Your task to perform on an android device: Empty the shopping cart on bestbuy. Add macbook pro 15 inch to the cart on bestbuy Image 0: 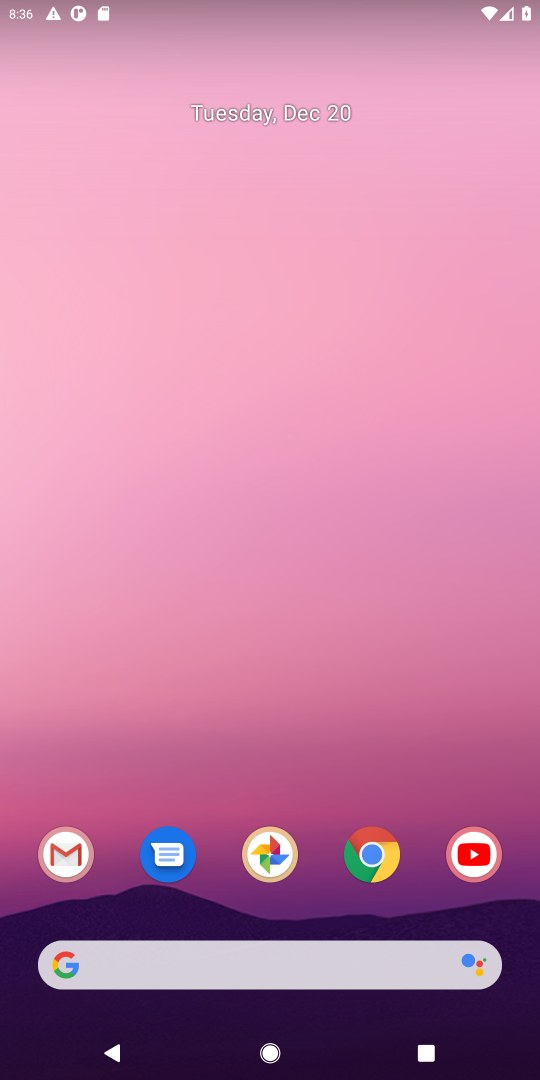
Step 0: click (380, 862)
Your task to perform on an android device: Empty the shopping cart on bestbuy. Add macbook pro 15 inch to the cart on bestbuy Image 1: 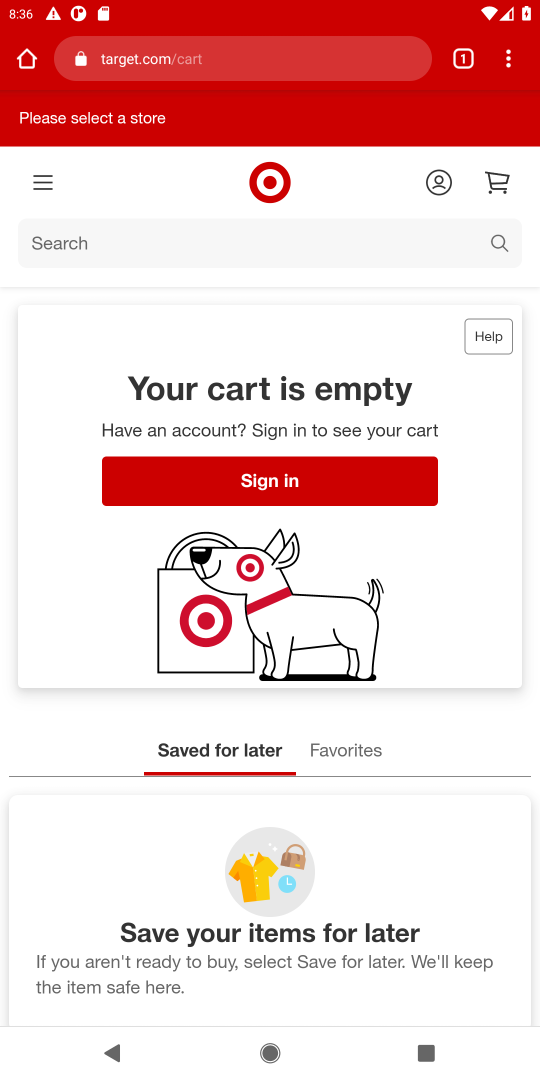
Step 1: click (185, 64)
Your task to perform on an android device: Empty the shopping cart on bestbuy. Add macbook pro 15 inch to the cart on bestbuy Image 2: 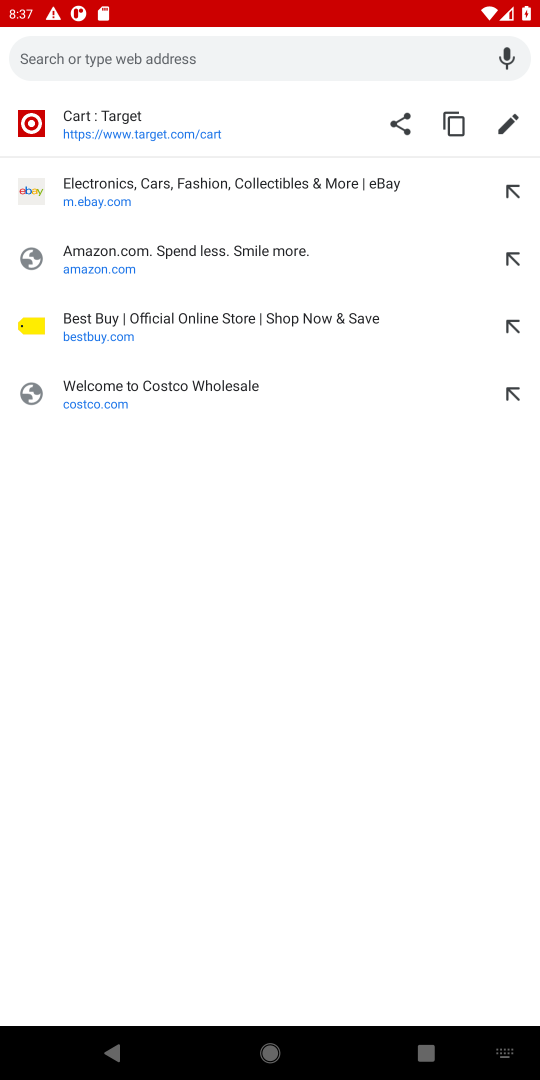
Step 2: click (100, 330)
Your task to perform on an android device: Empty the shopping cart on bestbuy. Add macbook pro 15 inch to the cart on bestbuy Image 3: 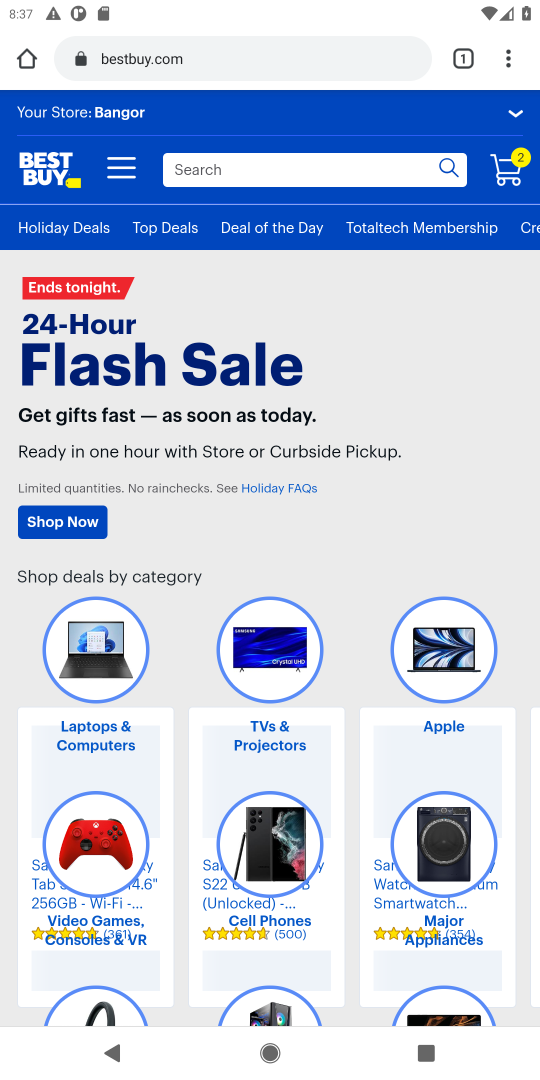
Step 3: click (503, 172)
Your task to perform on an android device: Empty the shopping cart on bestbuy. Add macbook pro 15 inch to the cart on bestbuy Image 4: 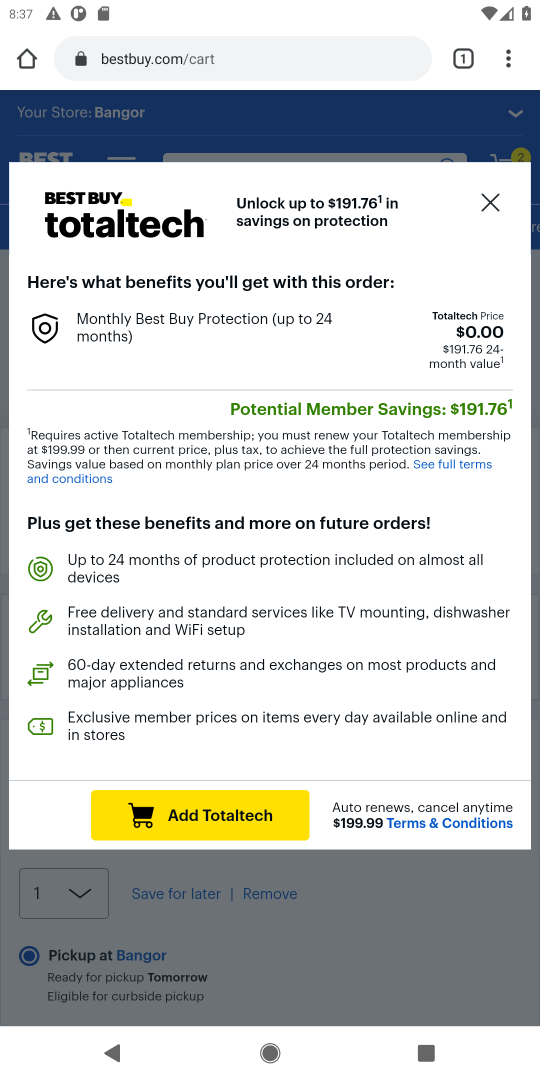
Step 4: click (486, 205)
Your task to perform on an android device: Empty the shopping cart on bestbuy. Add macbook pro 15 inch to the cart on bestbuy Image 5: 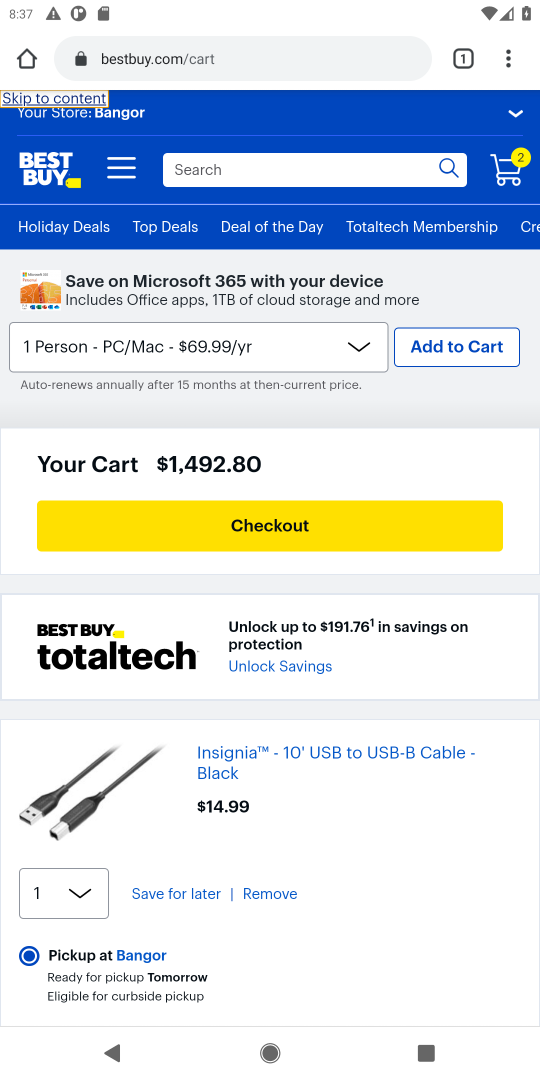
Step 5: drag from (227, 681) to (239, 494)
Your task to perform on an android device: Empty the shopping cart on bestbuy. Add macbook pro 15 inch to the cart on bestbuy Image 6: 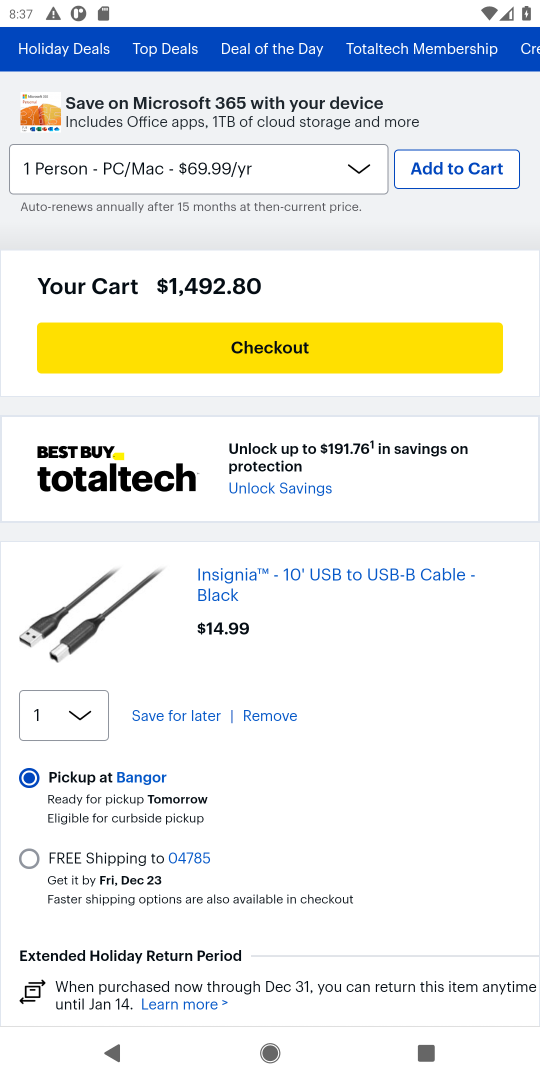
Step 6: click (275, 721)
Your task to perform on an android device: Empty the shopping cart on bestbuy. Add macbook pro 15 inch to the cart on bestbuy Image 7: 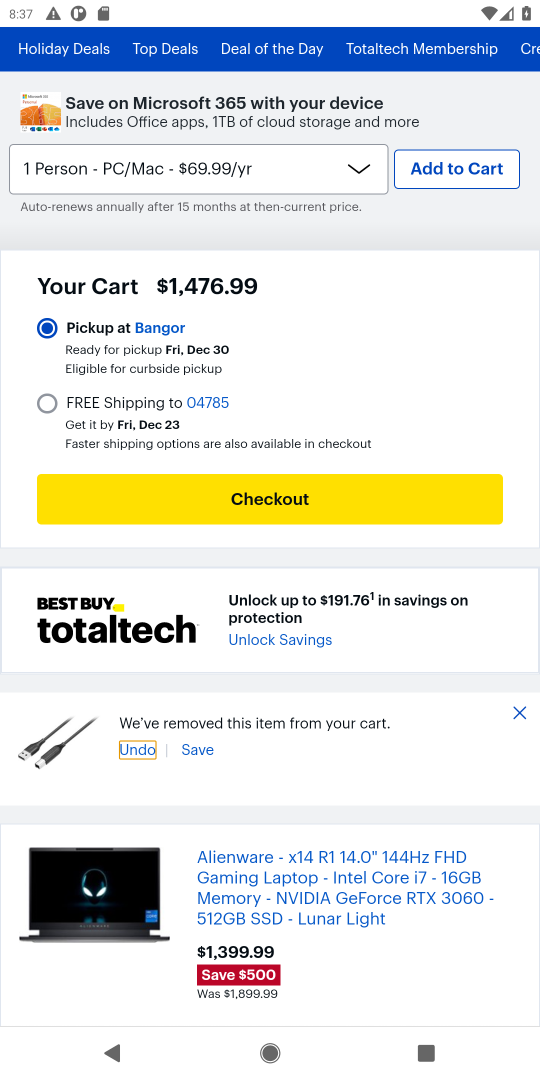
Step 7: drag from (310, 711) to (312, 581)
Your task to perform on an android device: Empty the shopping cart on bestbuy. Add macbook pro 15 inch to the cart on bestbuy Image 8: 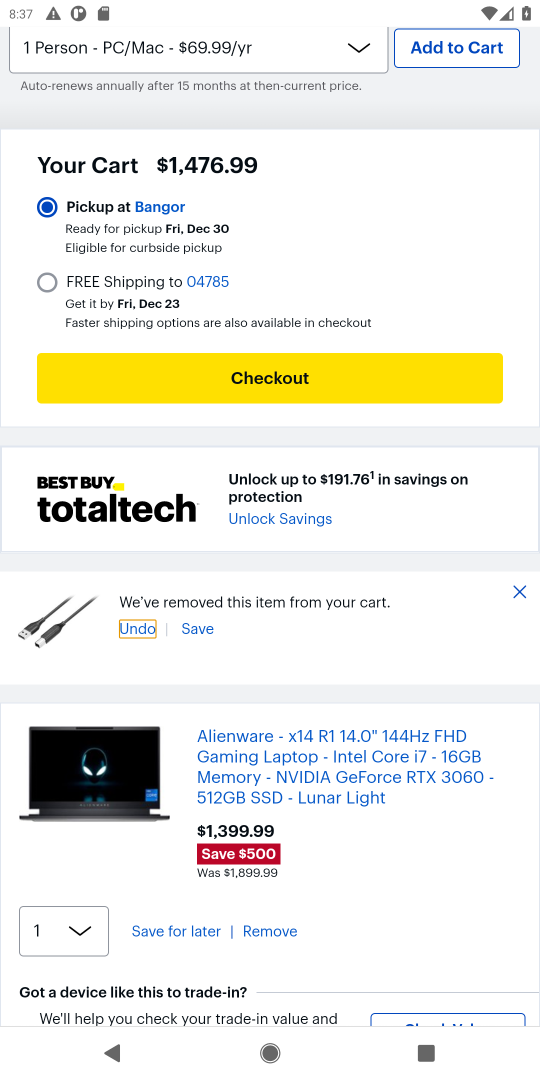
Step 8: click (268, 929)
Your task to perform on an android device: Empty the shopping cart on bestbuy. Add macbook pro 15 inch to the cart on bestbuy Image 9: 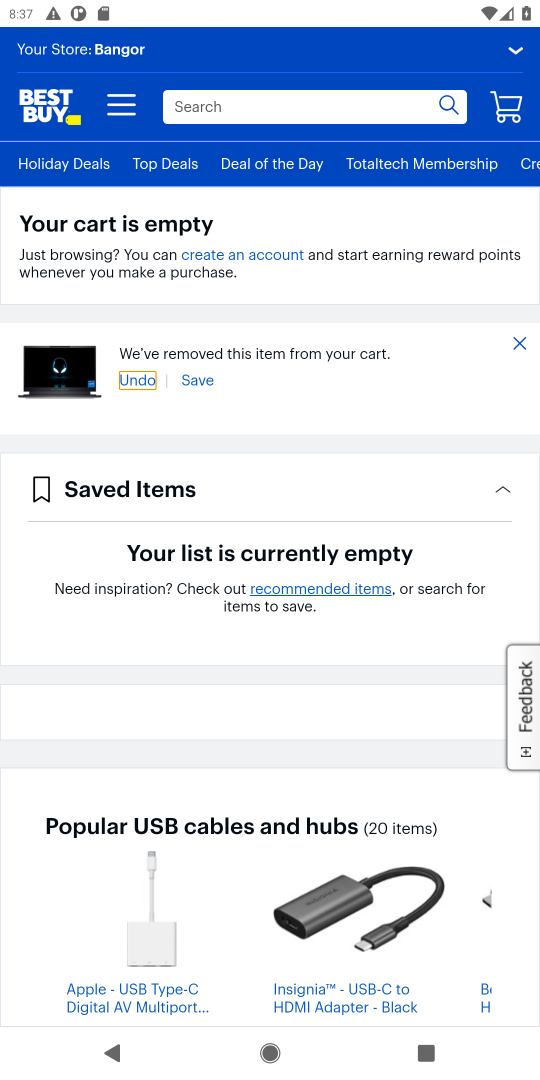
Step 9: click (203, 103)
Your task to perform on an android device: Empty the shopping cart on bestbuy. Add macbook pro 15 inch to the cart on bestbuy Image 10: 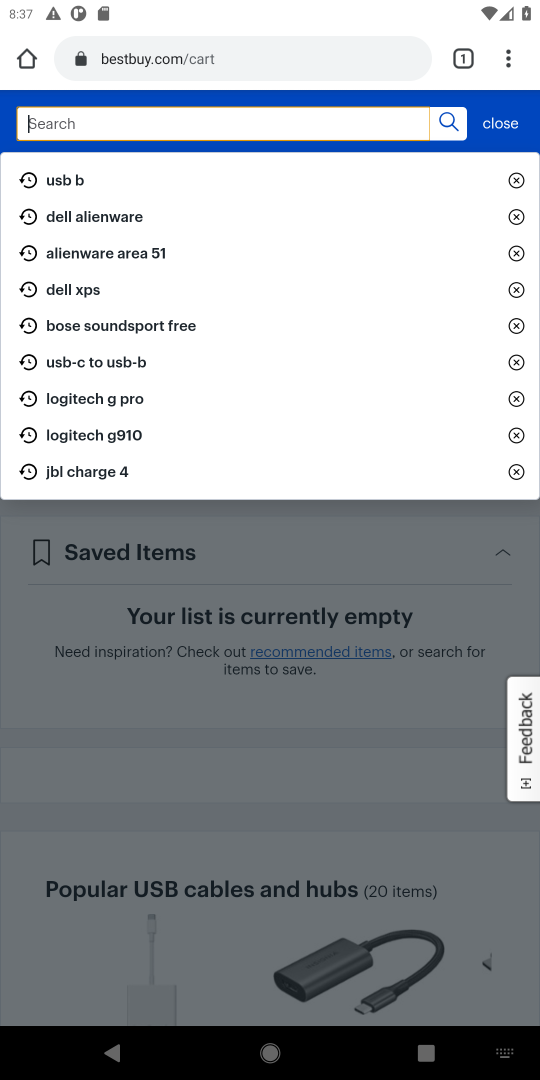
Step 10: type "macbook pro 15 inch "
Your task to perform on an android device: Empty the shopping cart on bestbuy. Add macbook pro 15 inch to the cart on bestbuy Image 11: 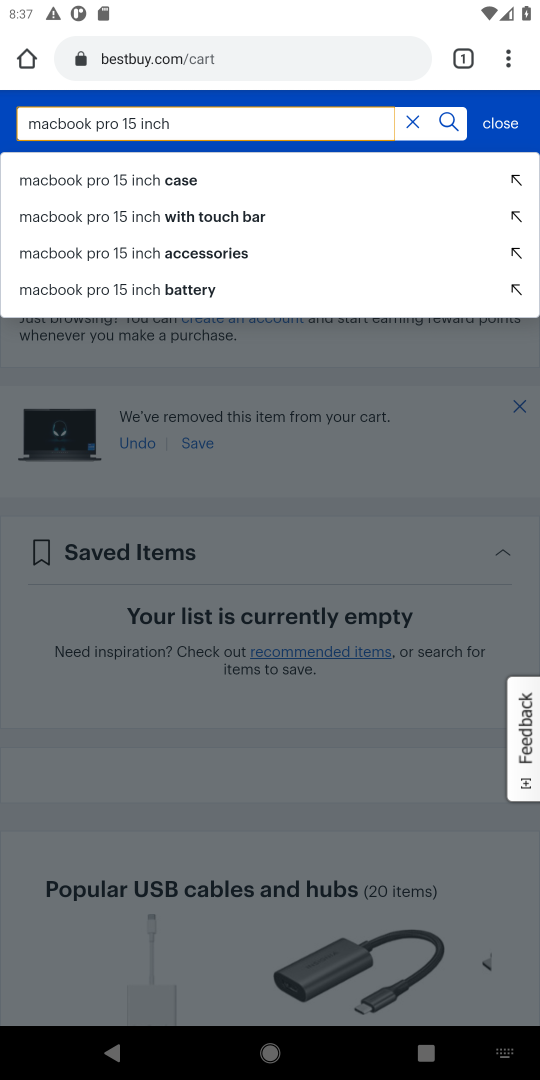
Step 11: click (450, 123)
Your task to perform on an android device: Empty the shopping cart on bestbuy. Add macbook pro 15 inch to the cart on bestbuy Image 12: 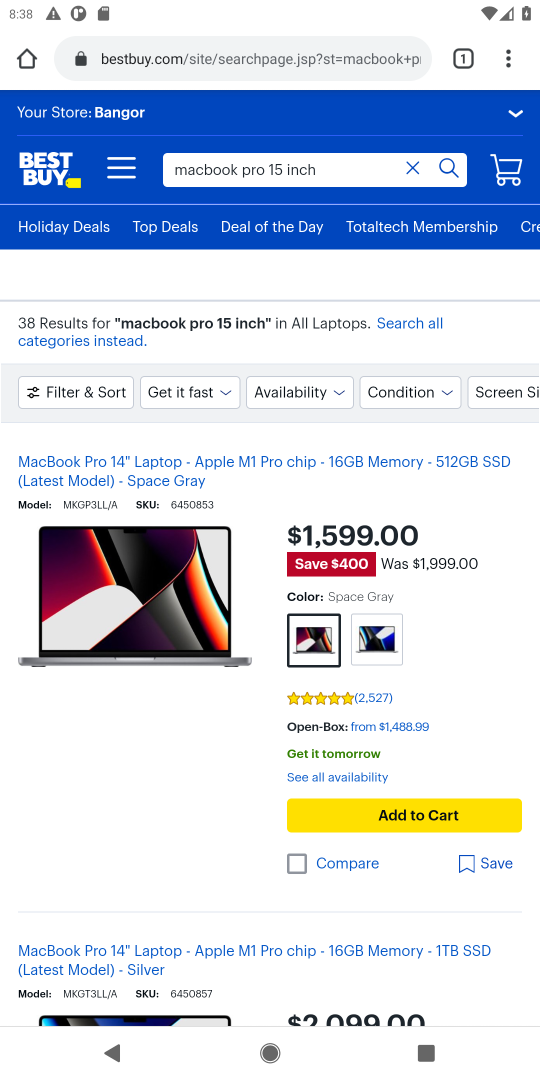
Step 12: drag from (180, 697) to (174, 248)
Your task to perform on an android device: Empty the shopping cart on bestbuy. Add macbook pro 15 inch to the cart on bestbuy Image 13: 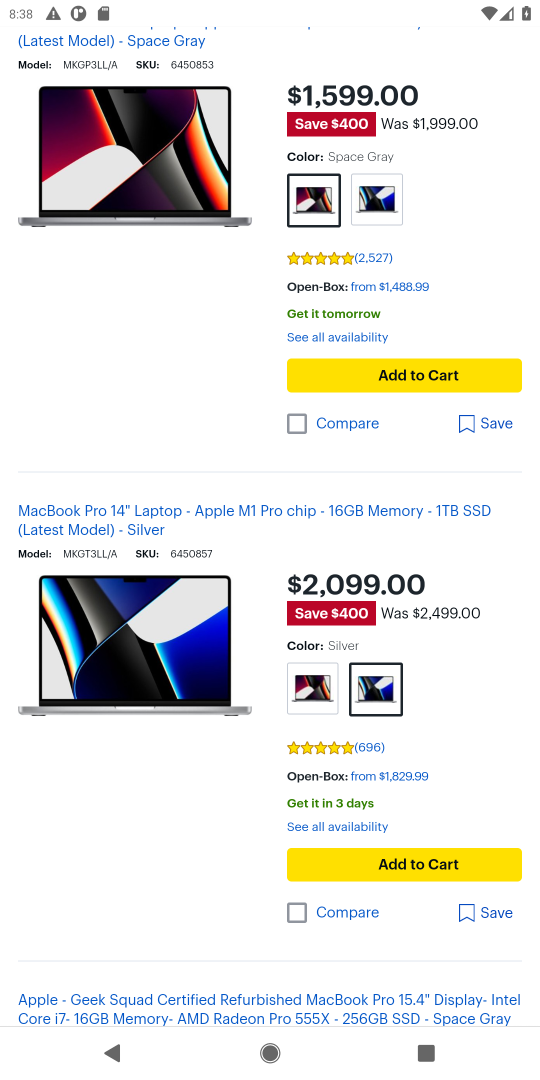
Step 13: drag from (140, 700) to (165, 317)
Your task to perform on an android device: Empty the shopping cart on bestbuy. Add macbook pro 15 inch to the cart on bestbuy Image 14: 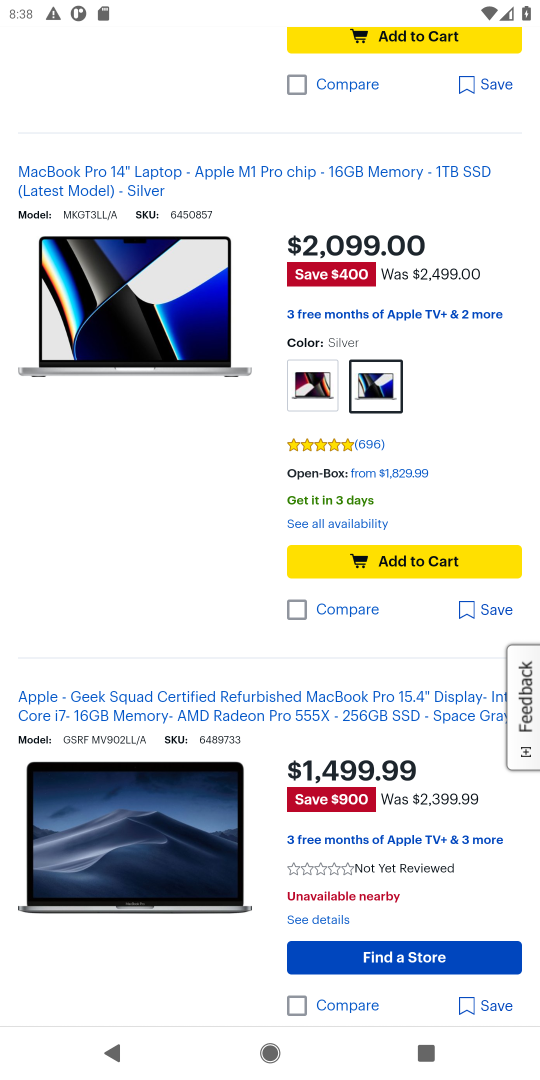
Step 14: drag from (162, 697) to (201, 471)
Your task to perform on an android device: Empty the shopping cart on bestbuy. Add macbook pro 15 inch to the cart on bestbuy Image 15: 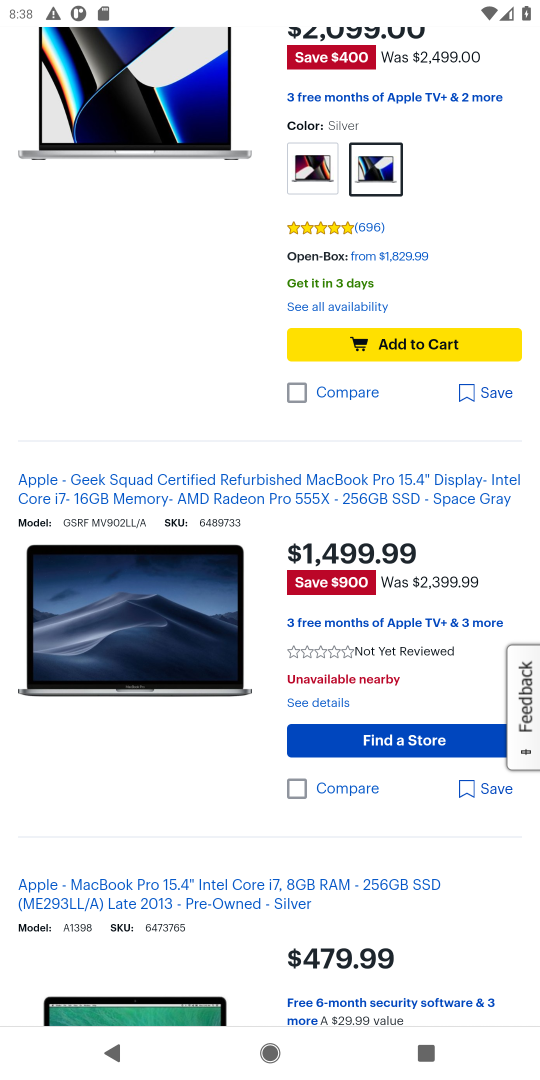
Step 15: drag from (226, 819) to (242, 533)
Your task to perform on an android device: Empty the shopping cart on bestbuy. Add macbook pro 15 inch to the cart on bestbuy Image 16: 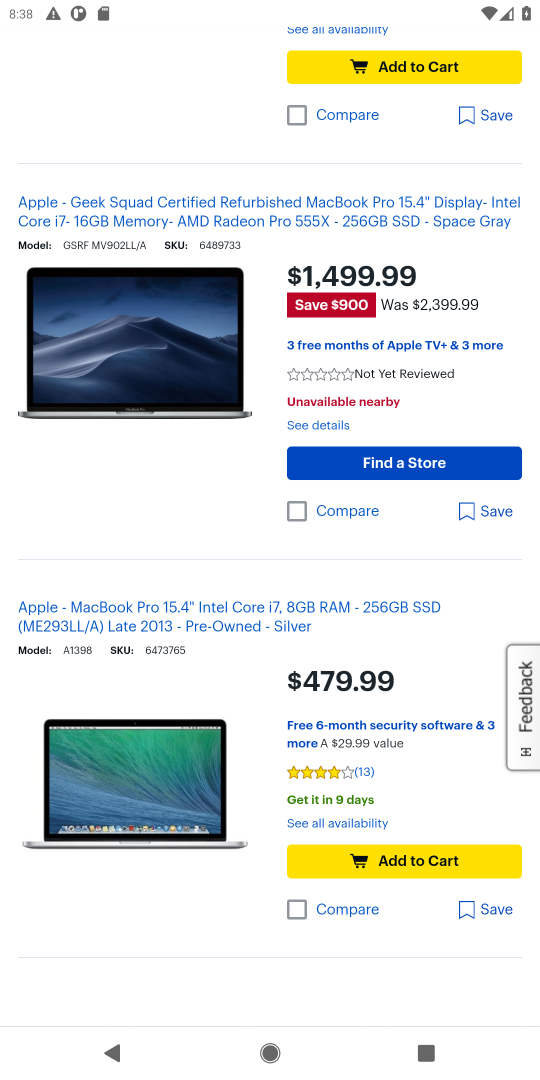
Step 16: click (429, 857)
Your task to perform on an android device: Empty the shopping cart on bestbuy. Add macbook pro 15 inch to the cart on bestbuy Image 17: 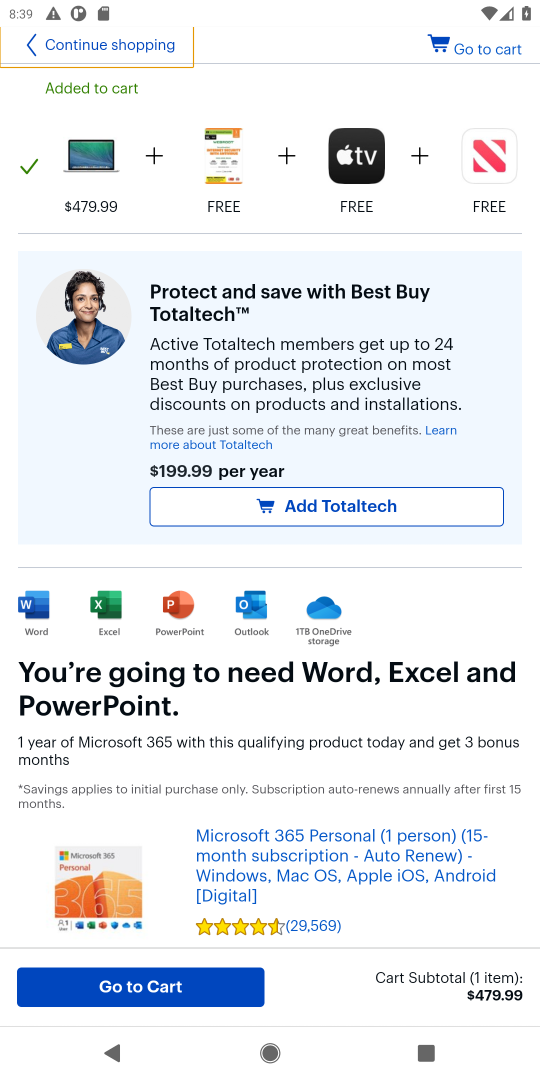
Step 17: task complete